Your task to perform on an android device: Open maps Image 0: 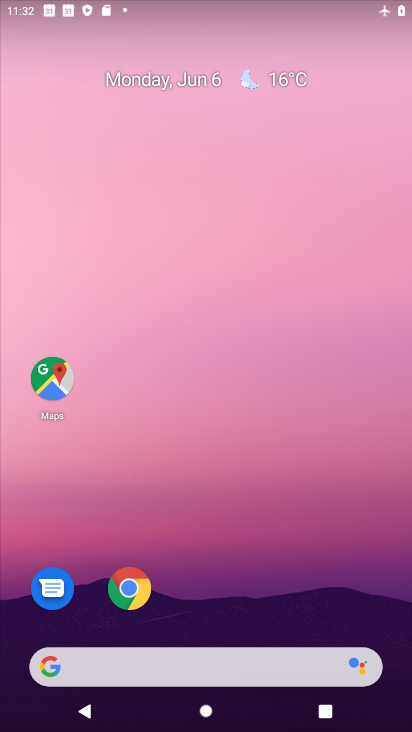
Step 0: click (52, 377)
Your task to perform on an android device: Open maps Image 1: 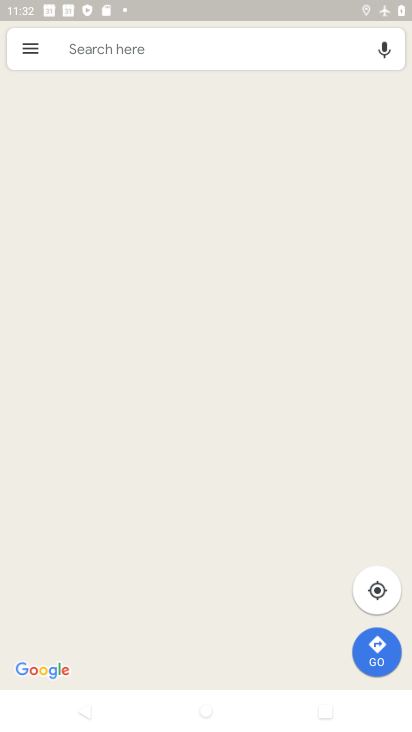
Step 1: task complete